Your task to perform on an android device: Open privacy settings Image 0: 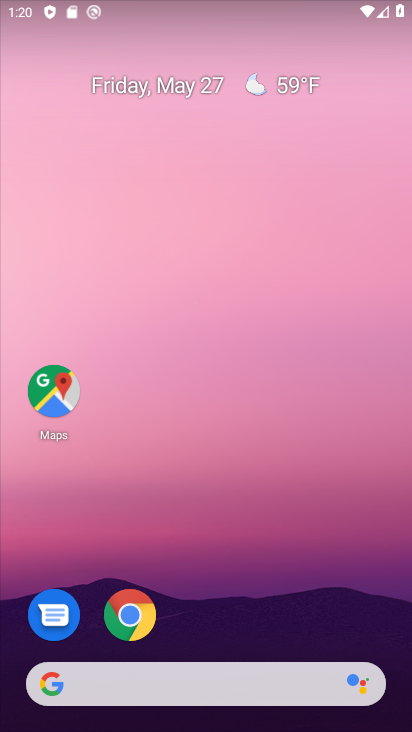
Step 0: drag from (243, 626) to (228, 219)
Your task to perform on an android device: Open privacy settings Image 1: 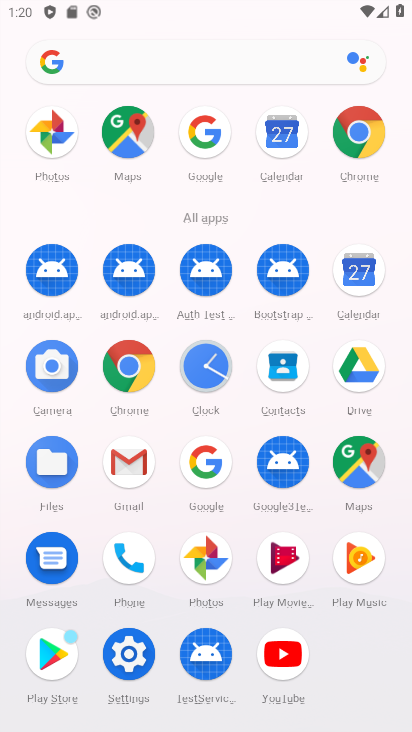
Step 1: click (119, 644)
Your task to perform on an android device: Open privacy settings Image 2: 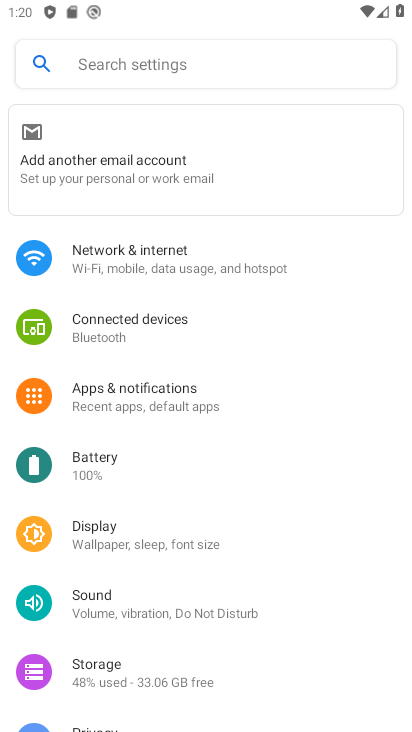
Step 2: drag from (321, 702) to (293, 160)
Your task to perform on an android device: Open privacy settings Image 3: 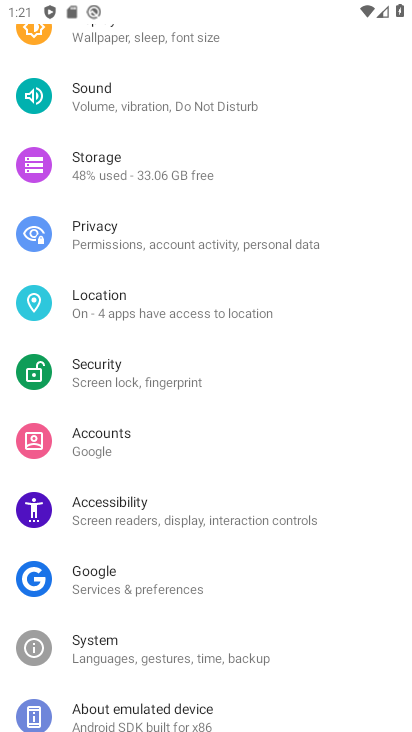
Step 3: click (63, 236)
Your task to perform on an android device: Open privacy settings Image 4: 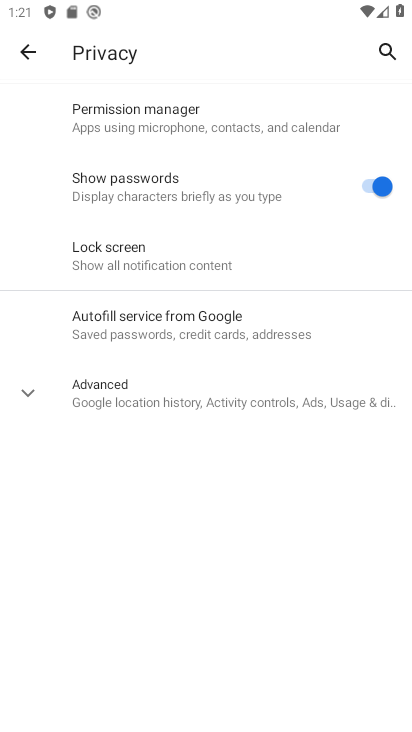
Step 4: task complete